Your task to perform on an android device: Open Amazon Image 0: 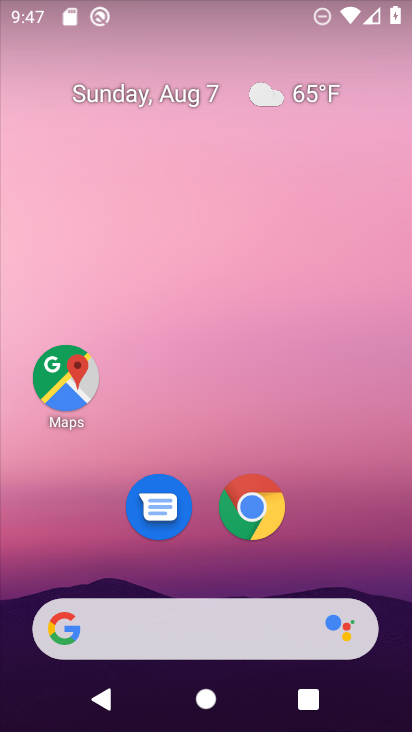
Step 0: drag from (328, 499) to (355, 146)
Your task to perform on an android device: Open Amazon Image 1: 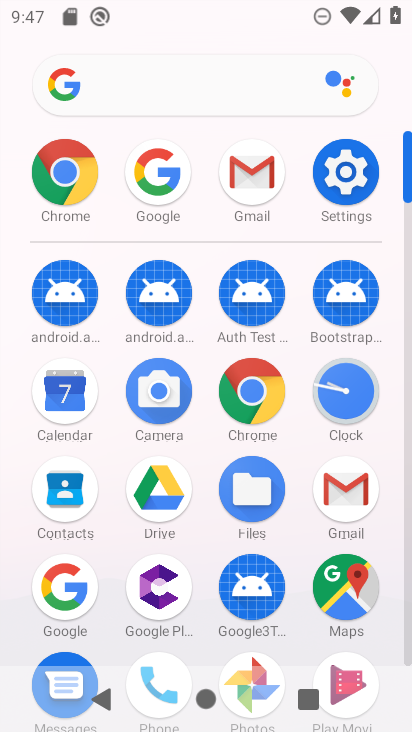
Step 1: click (275, 365)
Your task to perform on an android device: Open Amazon Image 2: 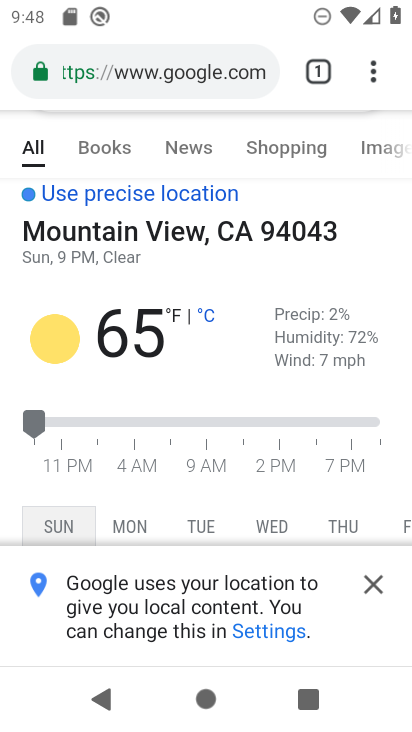
Step 2: click (210, 71)
Your task to perform on an android device: Open Amazon Image 3: 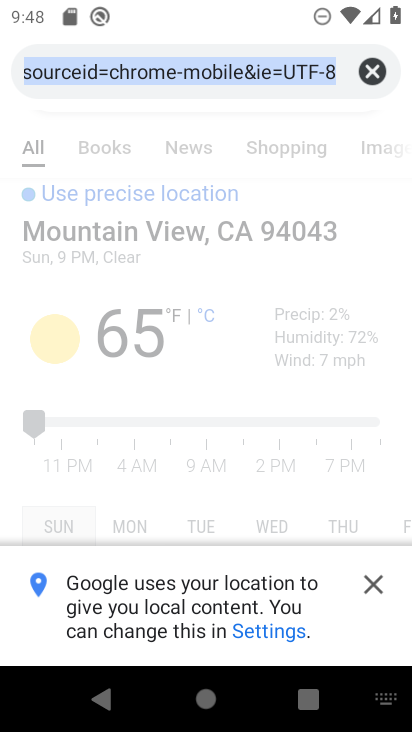
Step 3: type "amazon"
Your task to perform on an android device: Open Amazon Image 4: 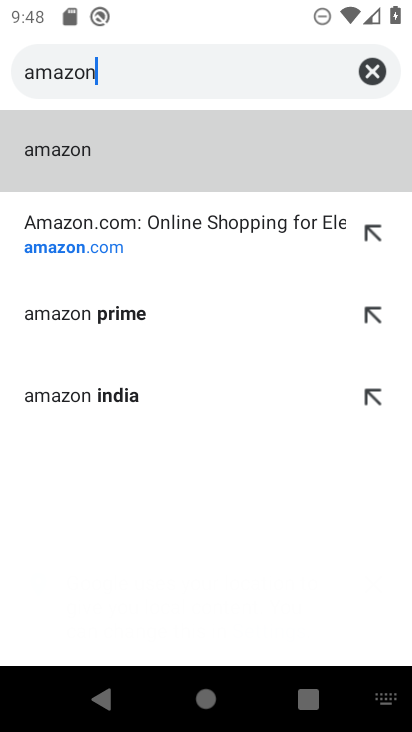
Step 4: click (46, 249)
Your task to perform on an android device: Open Amazon Image 5: 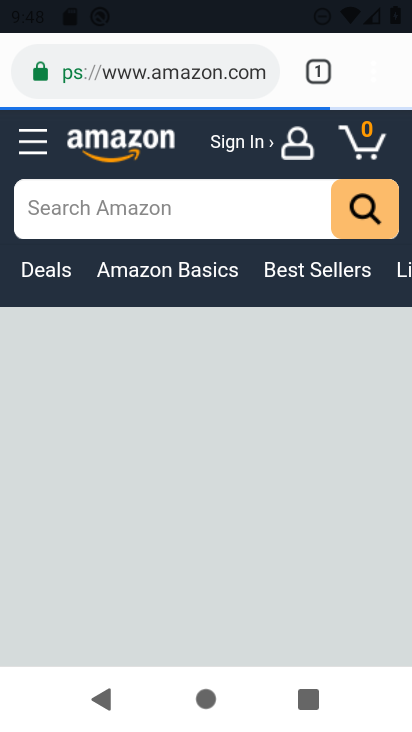
Step 5: task complete